Your task to perform on an android device: Open maps Image 0: 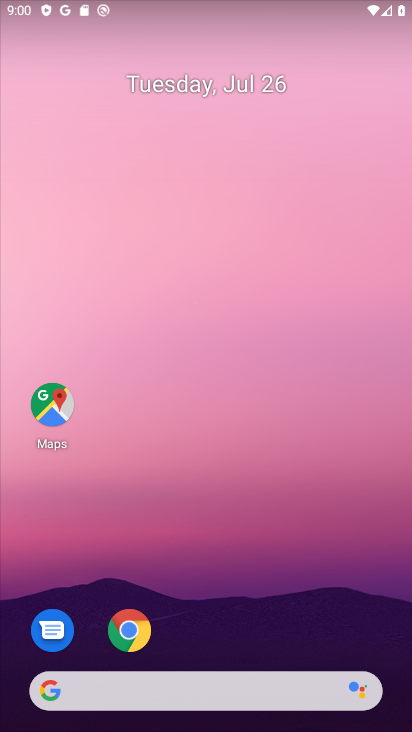
Step 0: click (53, 405)
Your task to perform on an android device: Open maps Image 1: 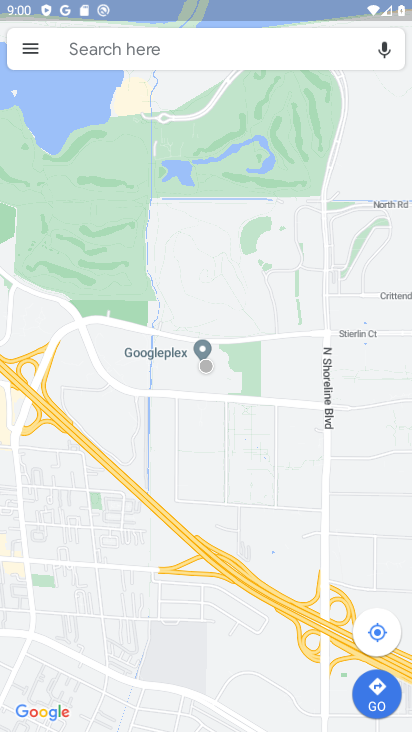
Step 1: task complete